Your task to perform on an android device: all mails in gmail Image 0: 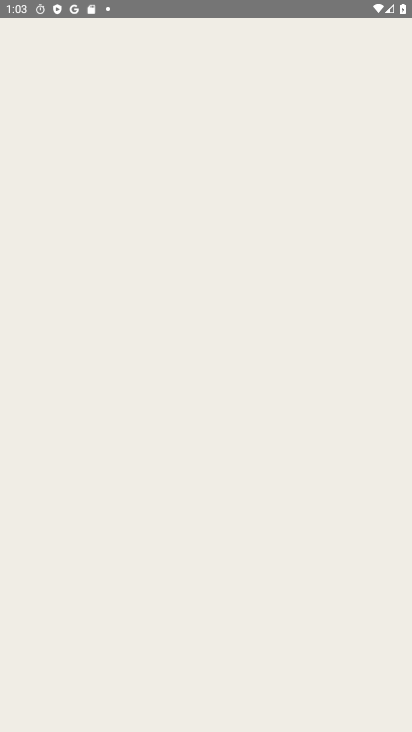
Step 0: drag from (367, 619) to (346, 499)
Your task to perform on an android device: all mails in gmail Image 1: 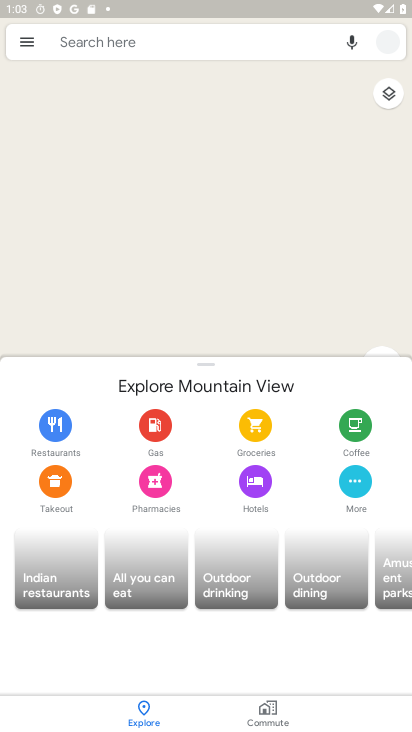
Step 1: press home button
Your task to perform on an android device: all mails in gmail Image 2: 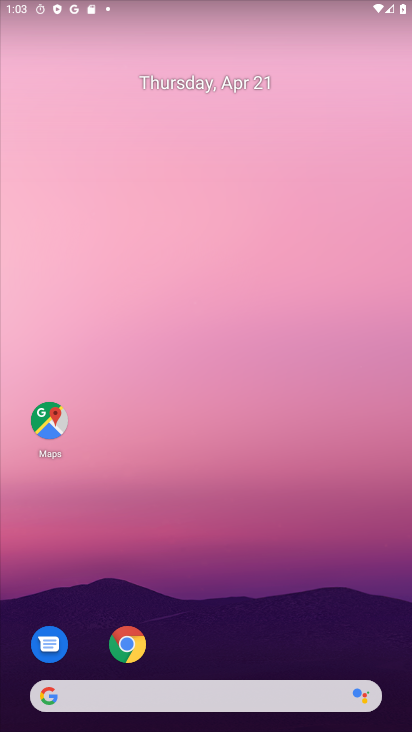
Step 2: drag from (289, 556) to (309, 80)
Your task to perform on an android device: all mails in gmail Image 3: 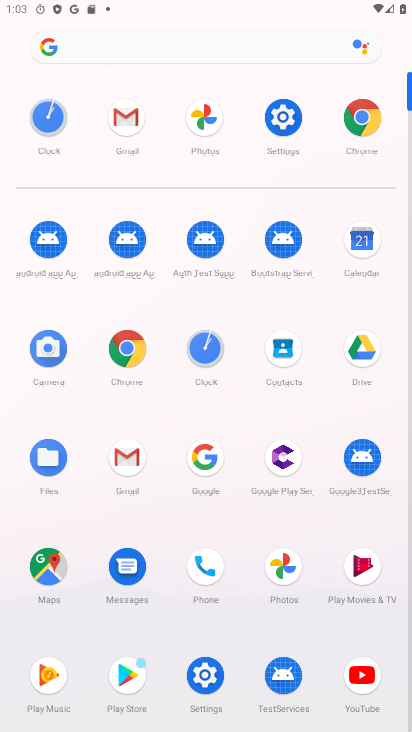
Step 3: click (120, 132)
Your task to perform on an android device: all mails in gmail Image 4: 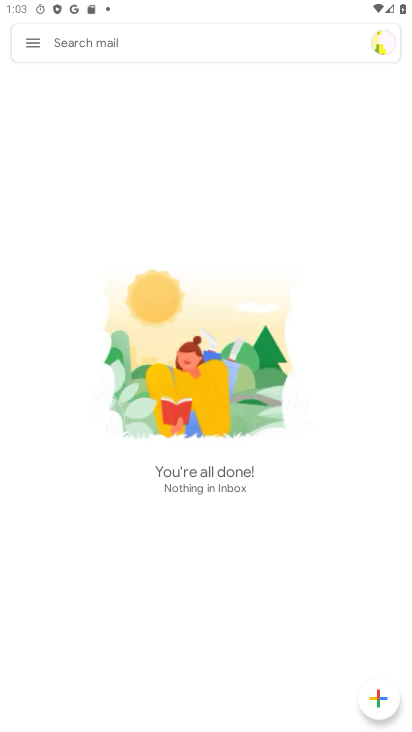
Step 4: click (36, 48)
Your task to perform on an android device: all mails in gmail Image 5: 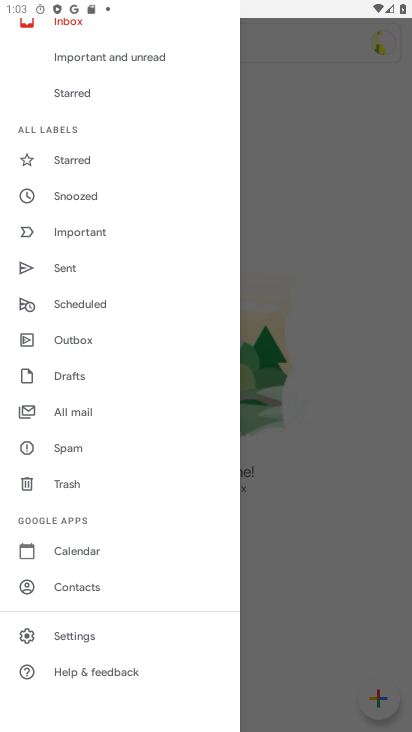
Step 5: click (115, 410)
Your task to perform on an android device: all mails in gmail Image 6: 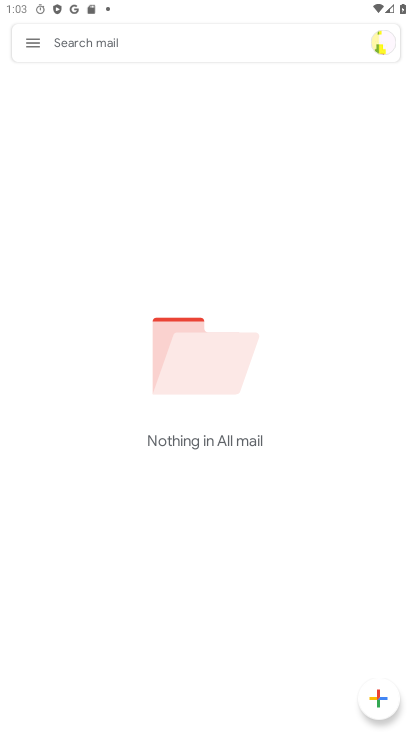
Step 6: task complete